Your task to perform on an android device: refresh tabs in the chrome app Image 0: 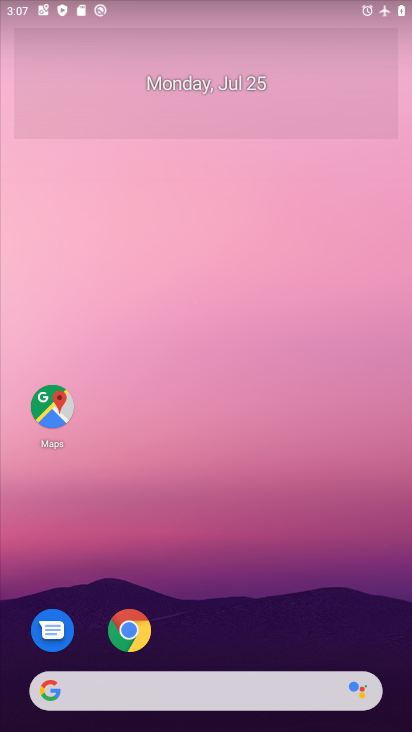
Step 0: click (143, 635)
Your task to perform on an android device: refresh tabs in the chrome app Image 1: 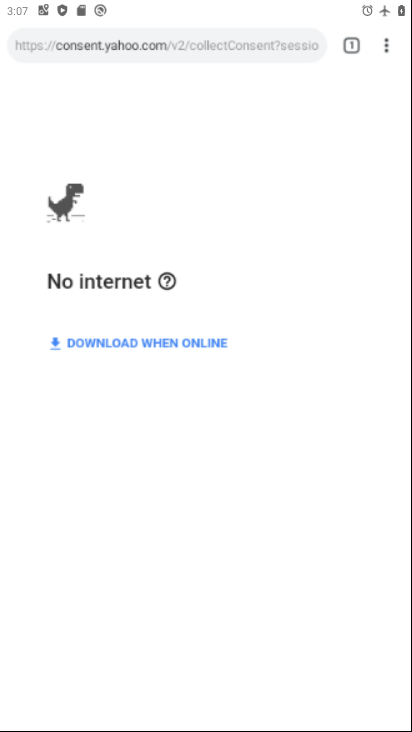
Step 1: task complete